Your task to perform on an android device: turn on translation in the chrome app Image 0: 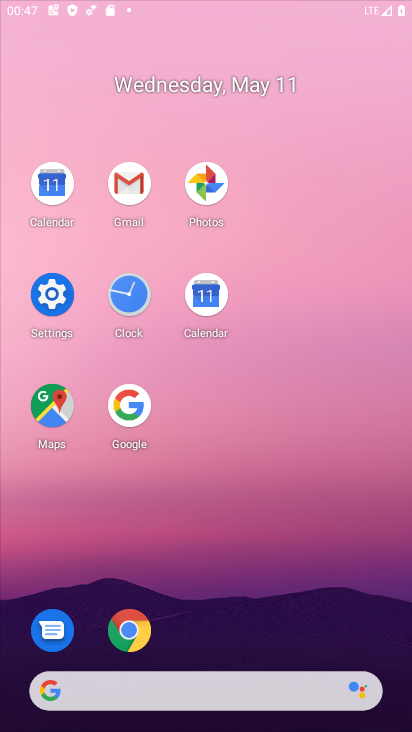
Step 0: click (136, 410)
Your task to perform on an android device: turn on translation in the chrome app Image 1: 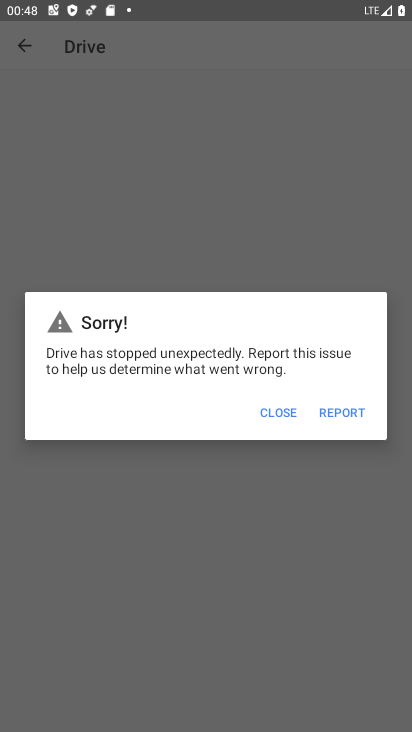
Step 1: press home button
Your task to perform on an android device: turn on translation in the chrome app Image 2: 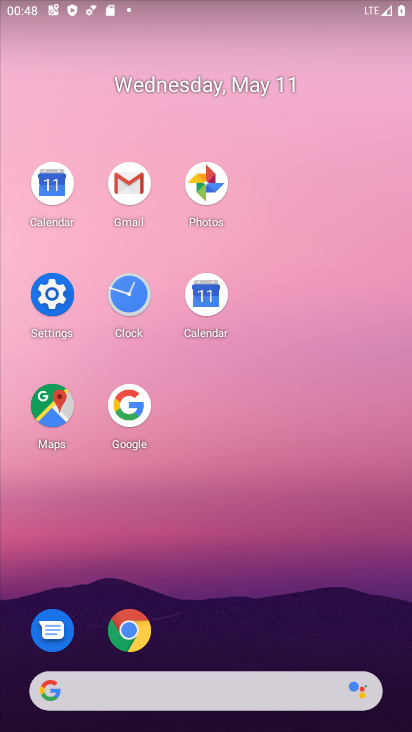
Step 2: click (129, 632)
Your task to perform on an android device: turn on translation in the chrome app Image 3: 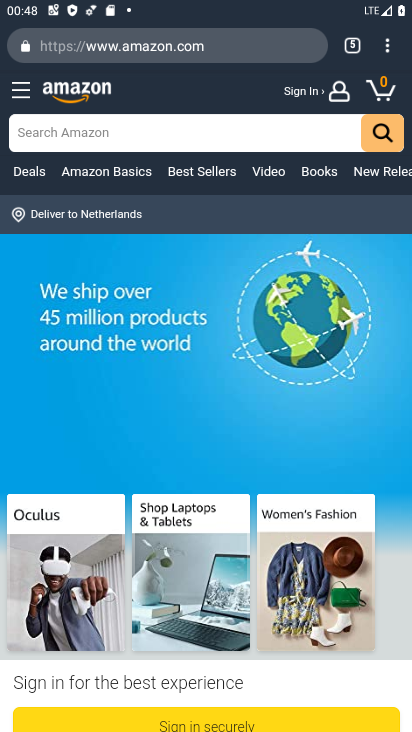
Step 3: click (400, 51)
Your task to perform on an android device: turn on translation in the chrome app Image 4: 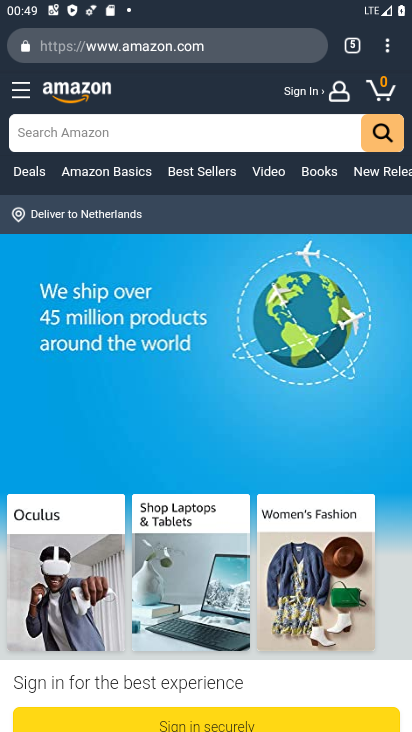
Step 4: click (380, 37)
Your task to perform on an android device: turn on translation in the chrome app Image 5: 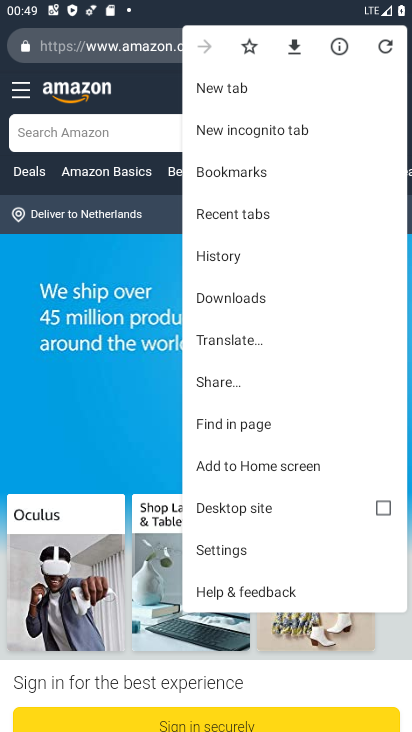
Step 5: drag from (257, 558) to (331, 150)
Your task to perform on an android device: turn on translation in the chrome app Image 6: 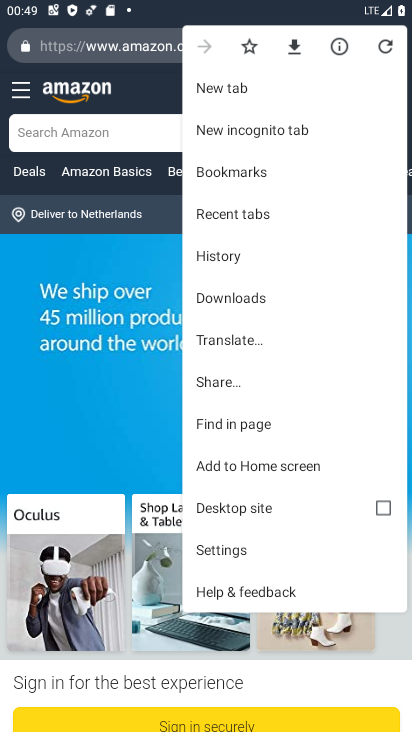
Step 6: click (245, 548)
Your task to perform on an android device: turn on translation in the chrome app Image 7: 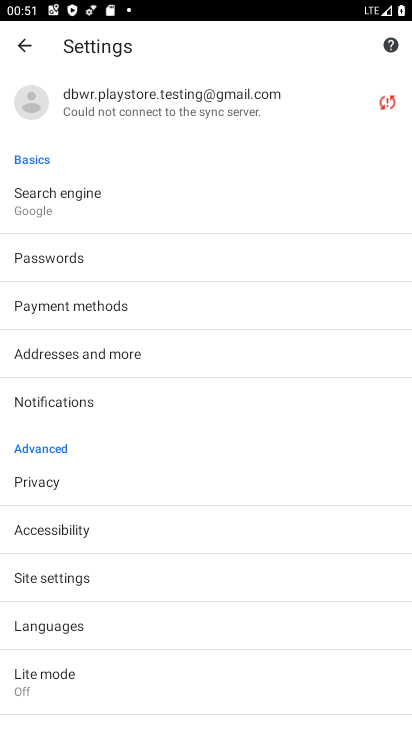
Step 7: click (134, 632)
Your task to perform on an android device: turn on translation in the chrome app Image 8: 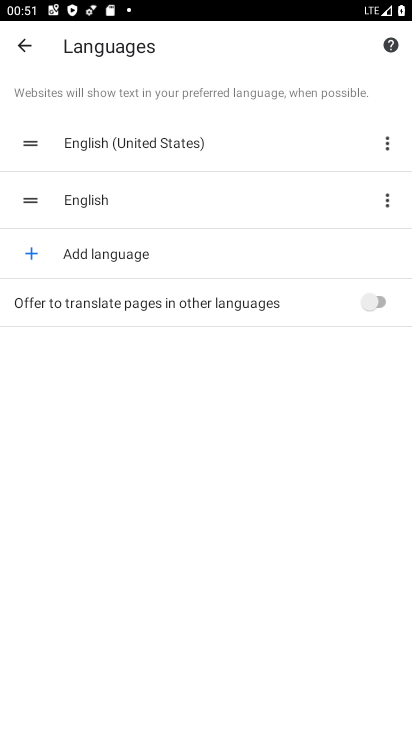
Step 8: click (383, 298)
Your task to perform on an android device: turn on translation in the chrome app Image 9: 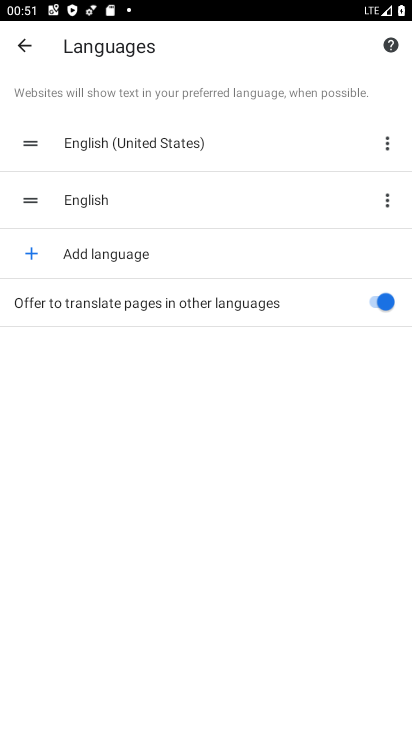
Step 9: task complete